Your task to perform on an android device: change the clock display to show seconds Image 0: 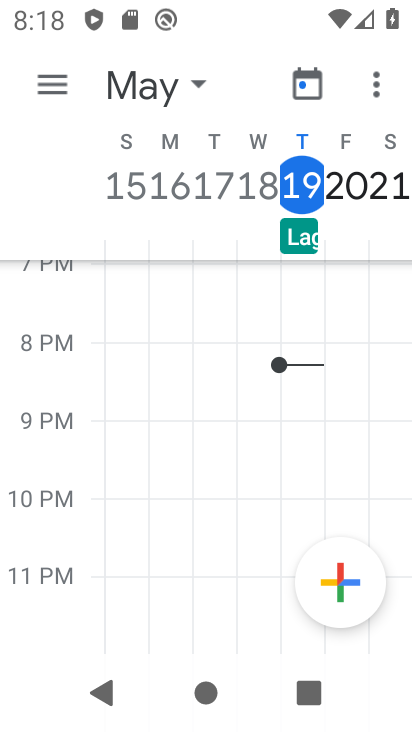
Step 0: press home button
Your task to perform on an android device: change the clock display to show seconds Image 1: 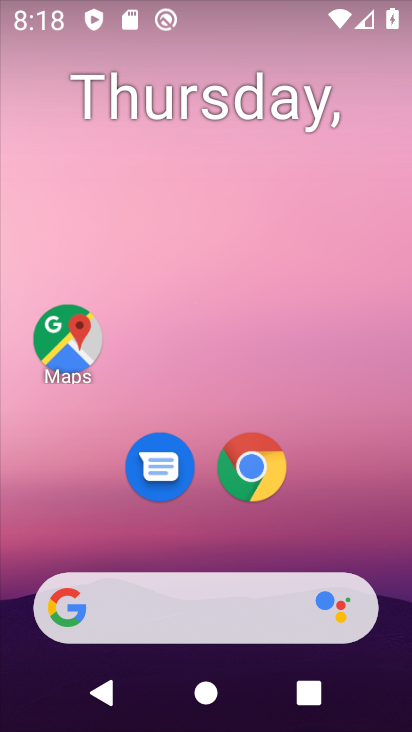
Step 1: drag from (228, 522) to (232, 120)
Your task to perform on an android device: change the clock display to show seconds Image 2: 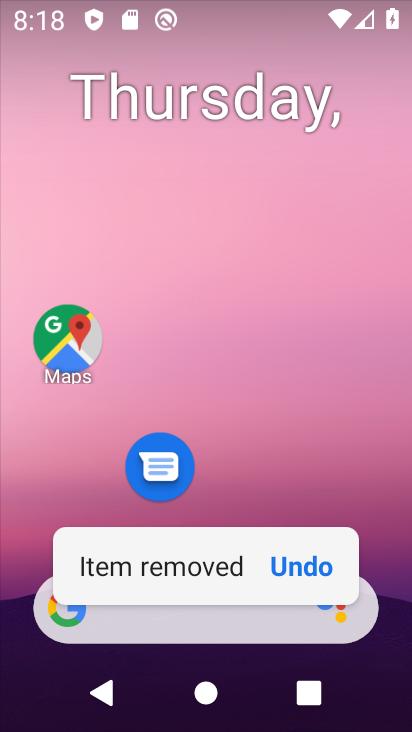
Step 2: click (291, 572)
Your task to perform on an android device: change the clock display to show seconds Image 3: 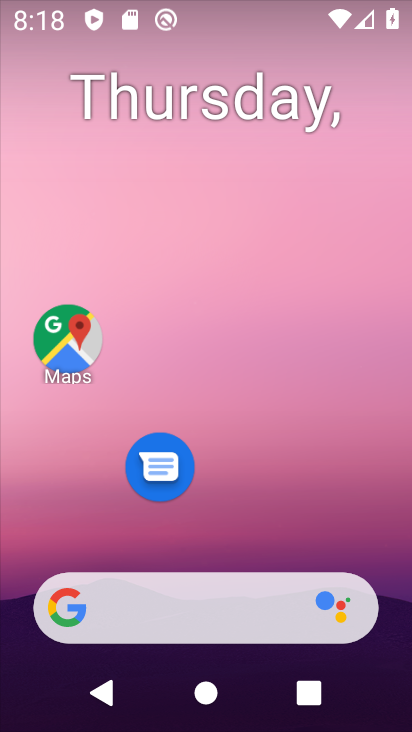
Step 3: click (214, 292)
Your task to perform on an android device: change the clock display to show seconds Image 4: 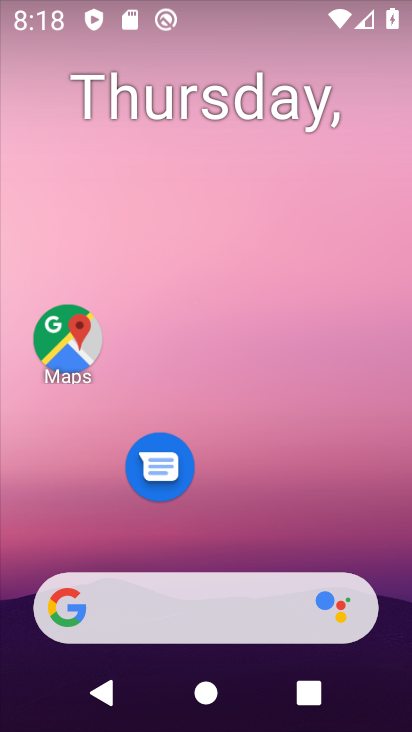
Step 4: drag from (249, 558) to (257, 10)
Your task to perform on an android device: change the clock display to show seconds Image 5: 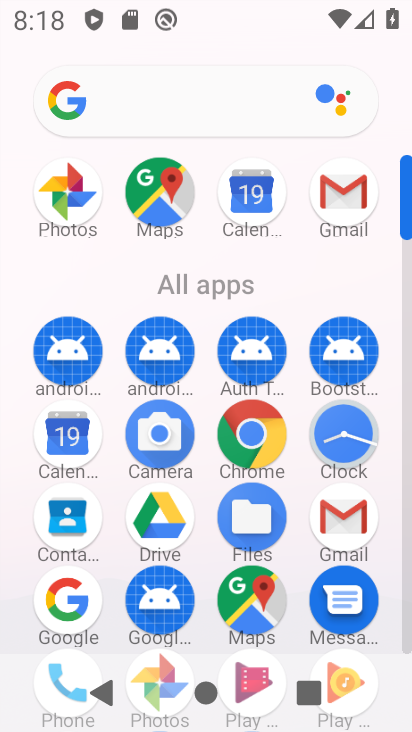
Step 5: click (352, 454)
Your task to perform on an android device: change the clock display to show seconds Image 6: 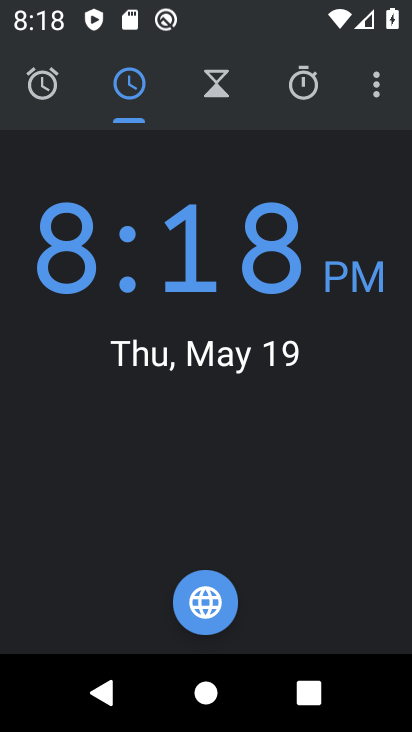
Step 6: click (376, 92)
Your task to perform on an android device: change the clock display to show seconds Image 7: 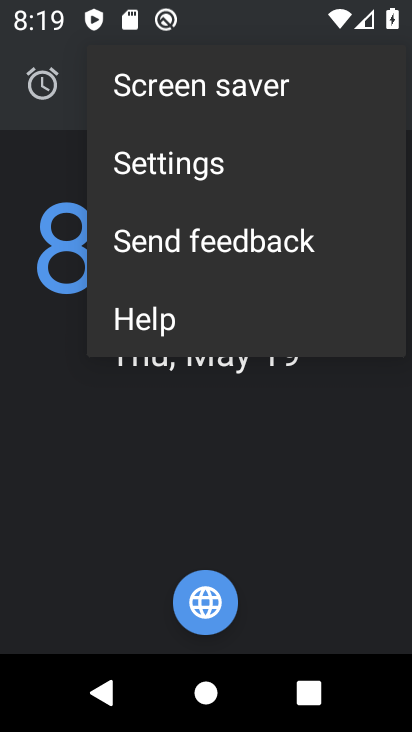
Step 7: click (206, 185)
Your task to perform on an android device: change the clock display to show seconds Image 8: 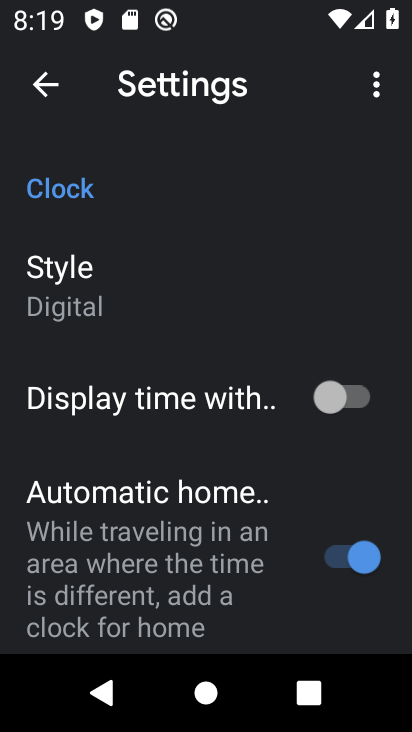
Step 8: click (350, 403)
Your task to perform on an android device: change the clock display to show seconds Image 9: 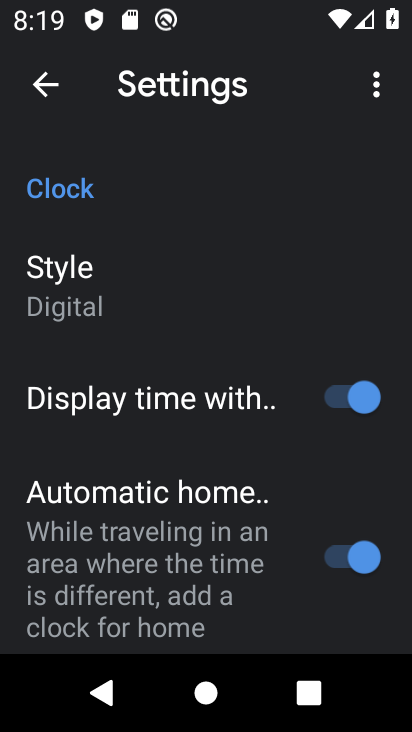
Step 9: task complete